Your task to perform on an android device: Do I have any events tomorrow? Image 0: 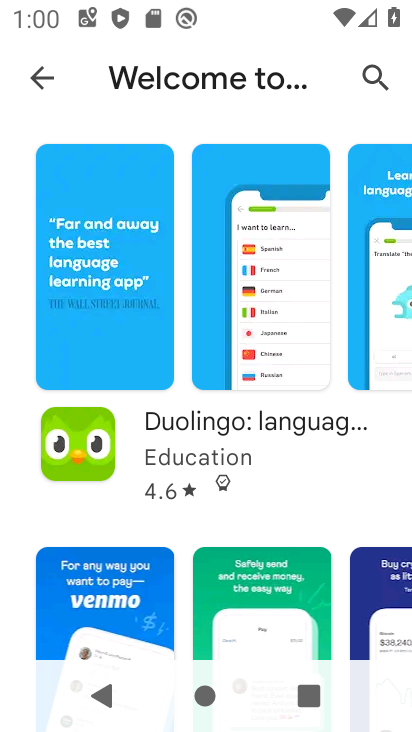
Step 0: press home button
Your task to perform on an android device: Do I have any events tomorrow? Image 1: 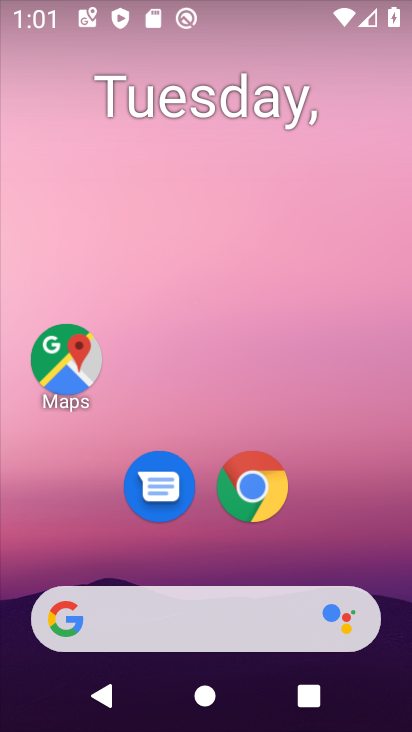
Step 1: drag from (344, 564) to (312, 255)
Your task to perform on an android device: Do I have any events tomorrow? Image 2: 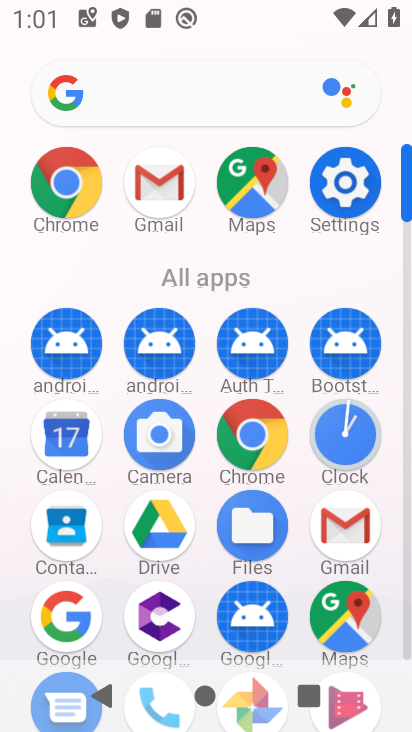
Step 2: click (54, 451)
Your task to perform on an android device: Do I have any events tomorrow? Image 3: 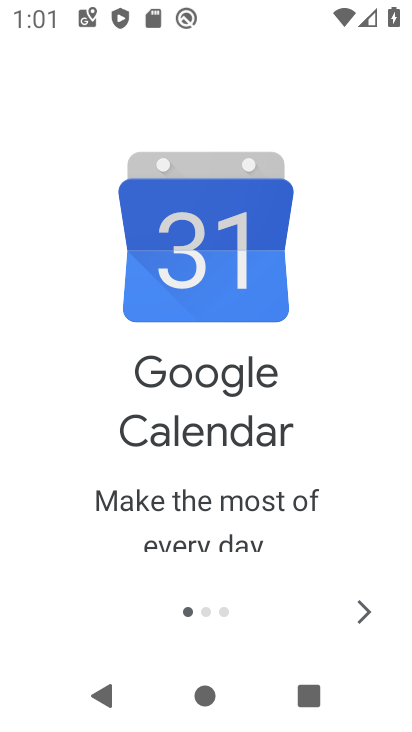
Step 3: click (363, 612)
Your task to perform on an android device: Do I have any events tomorrow? Image 4: 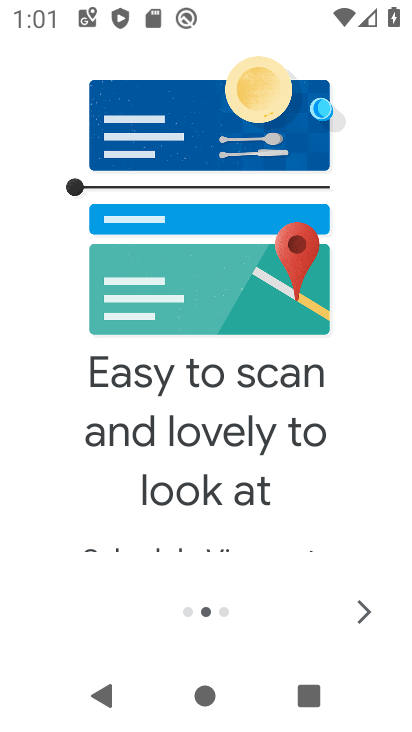
Step 4: click (363, 612)
Your task to perform on an android device: Do I have any events tomorrow? Image 5: 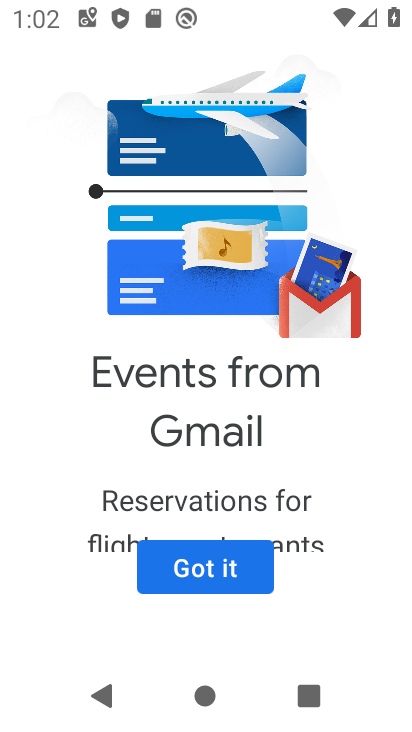
Step 5: click (189, 585)
Your task to perform on an android device: Do I have any events tomorrow? Image 6: 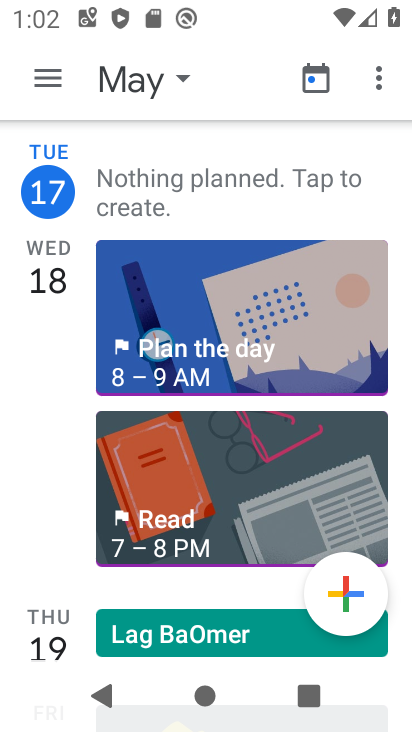
Step 6: click (55, 78)
Your task to perform on an android device: Do I have any events tomorrow? Image 7: 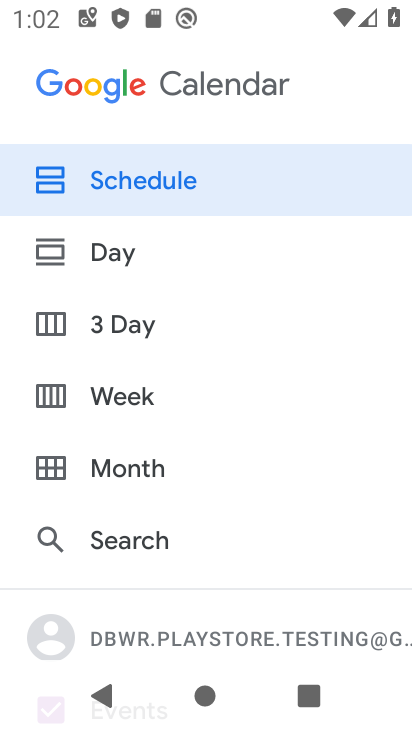
Step 7: click (142, 254)
Your task to perform on an android device: Do I have any events tomorrow? Image 8: 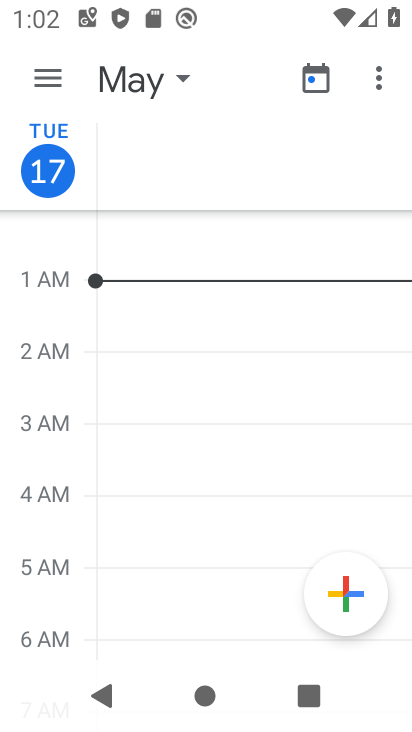
Step 8: click (160, 91)
Your task to perform on an android device: Do I have any events tomorrow? Image 9: 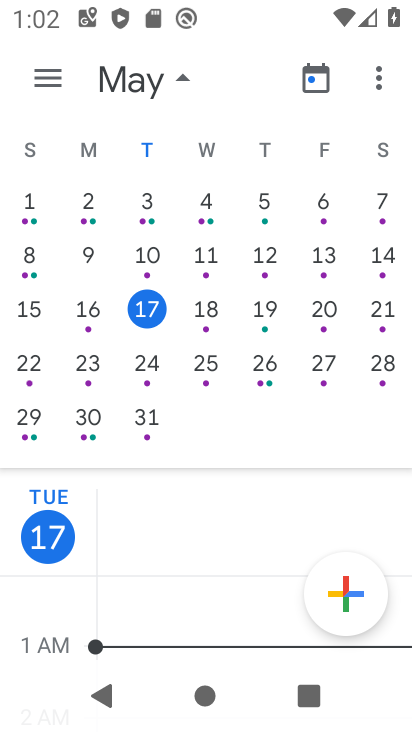
Step 9: click (214, 316)
Your task to perform on an android device: Do I have any events tomorrow? Image 10: 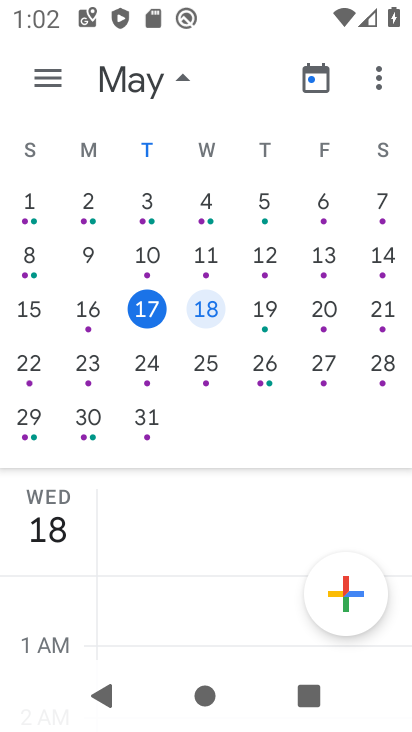
Step 10: click (154, 79)
Your task to perform on an android device: Do I have any events tomorrow? Image 11: 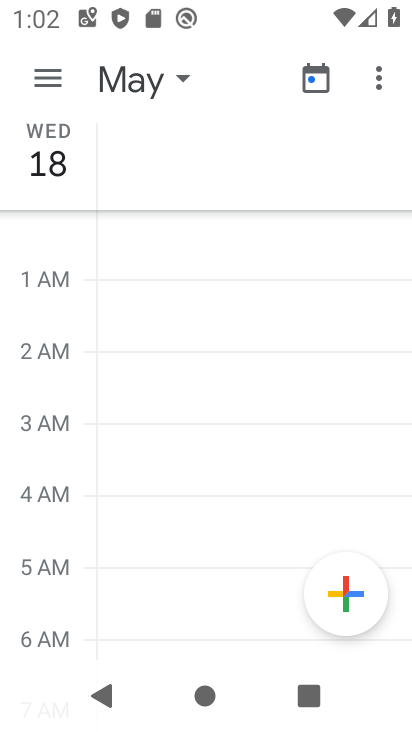
Step 11: task complete